Your task to perform on an android device: check out phone information Image 0: 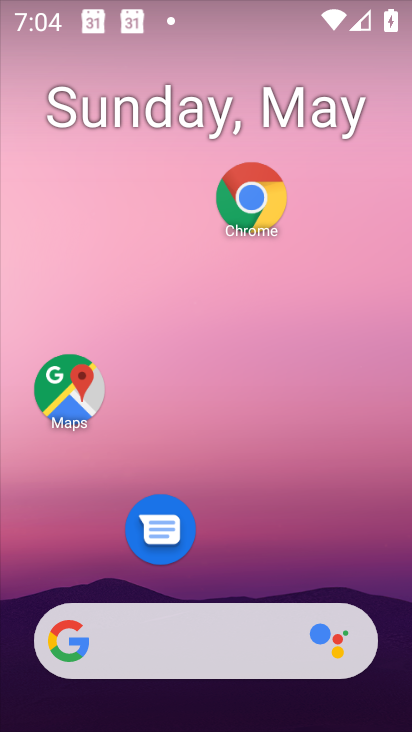
Step 0: drag from (223, 567) to (245, 247)
Your task to perform on an android device: check out phone information Image 1: 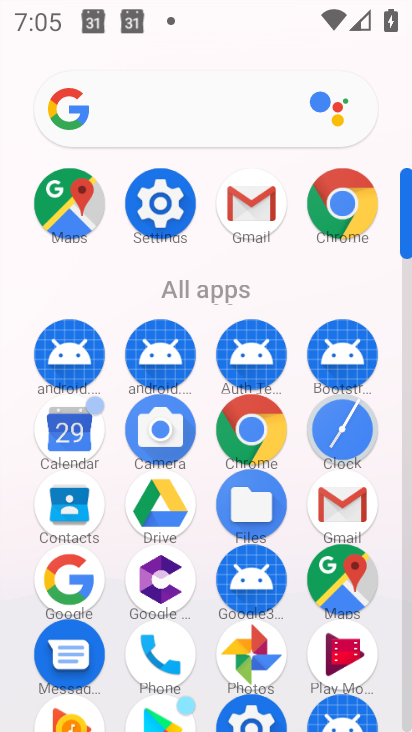
Step 1: click (164, 208)
Your task to perform on an android device: check out phone information Image 2: 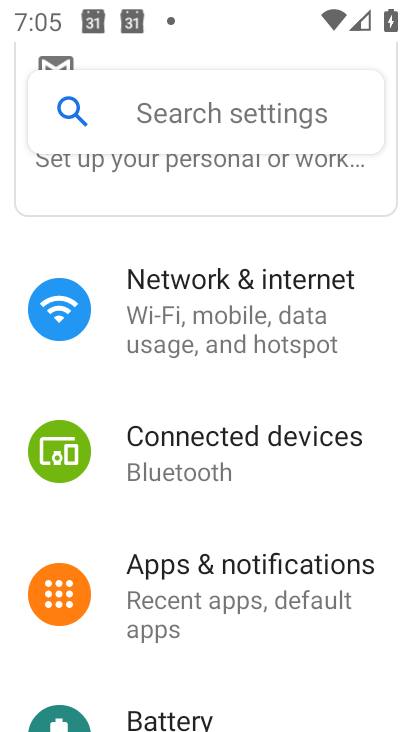
Step 2: drag from (245, 669) to (279, 237)
Your task to perform on an android device: check out phone information Image 3: 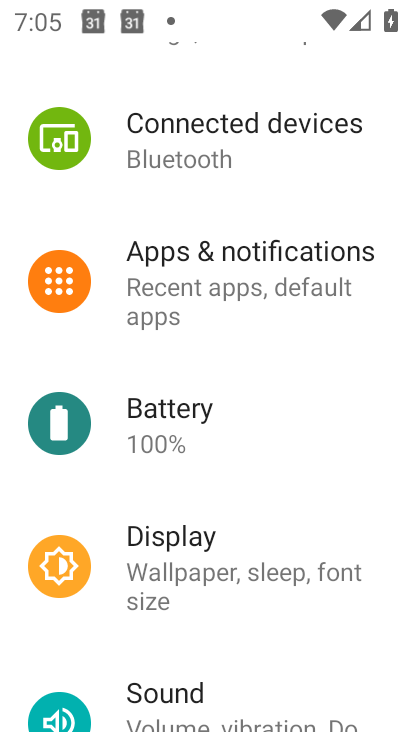
Step 3: drag from (237, 624) to (279, 335)
Your task to perform on an android device: check out phone information Image 4: 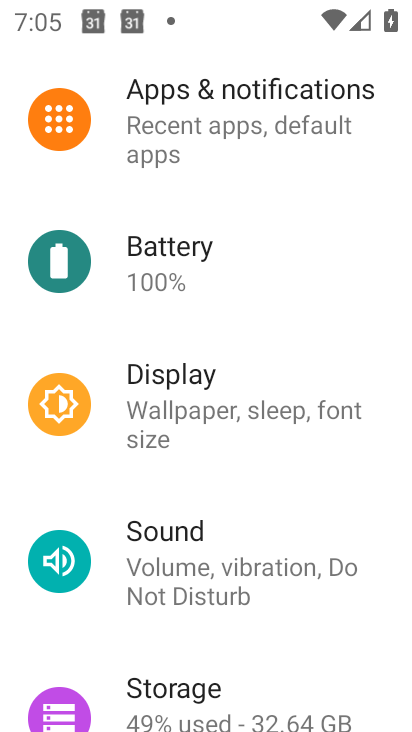
Step 4: drag from (272, 648) to (314, 241)
Your task to perform on an android device: check out phone information Image 5: 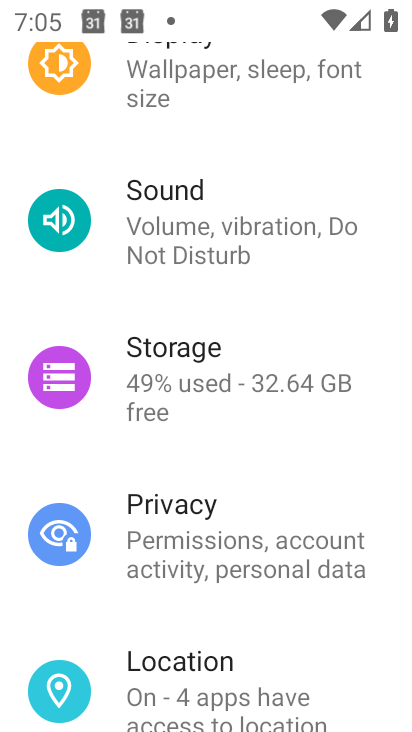
Step 5: drag from (269, 675) to (323, 332)
Your task to perform on an android device: check out phone information Image 6: 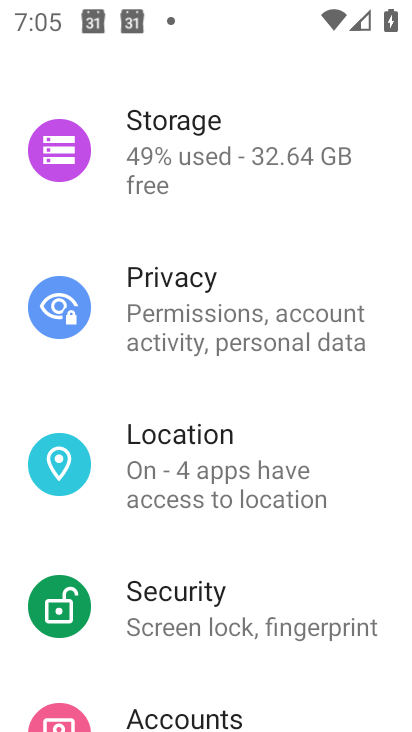
Step 6: drag from (272, 685) to (342, 333)
Your task to perform on an android device: check out phone information Image 7: 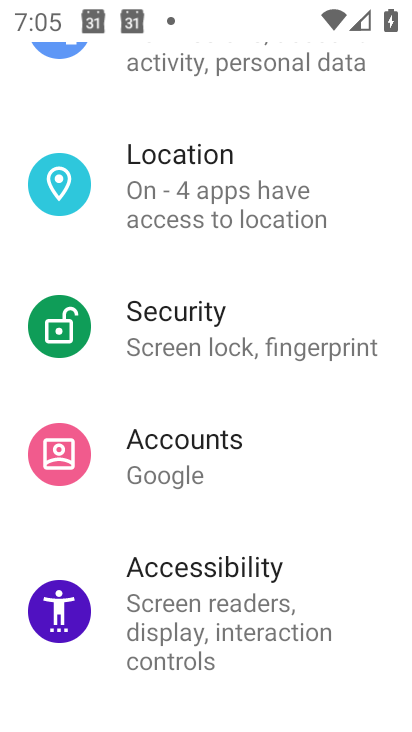
Step 7: drag from (282, 669) to (294, 355)
Your task to perform on an android device: check out phone information Image 8: 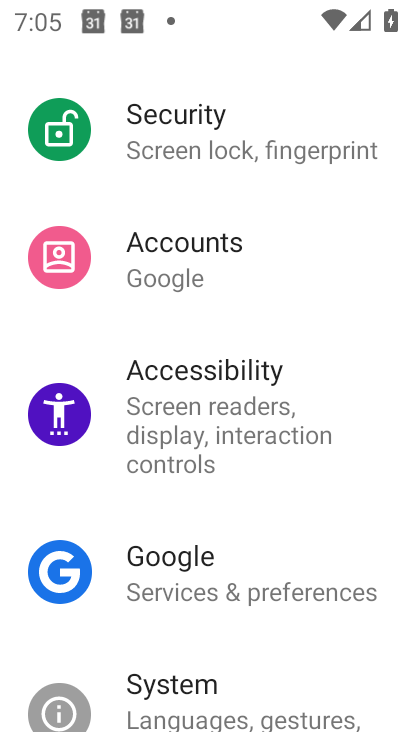
Step 8: drag from (257, 610) to (296, 320)
Your task to perform on an android device: check out phone information Image 9: 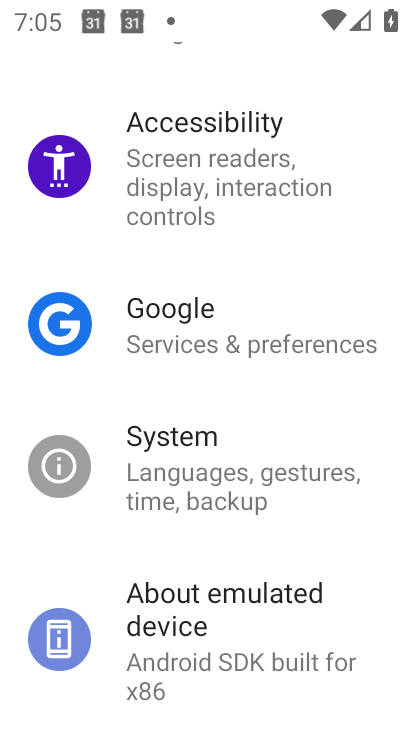
Step 9: click (275, 616)
Your task to perform on an android device: check out phone information Image 10: 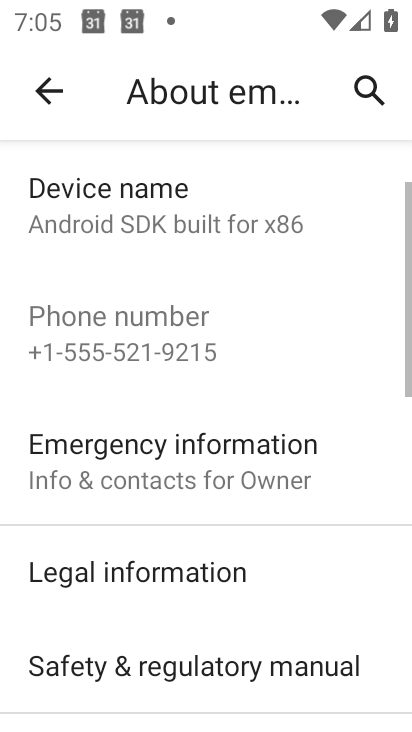
Step 10: click (270, 501)
Your task to perform on an android device: check out phone information Image 11: 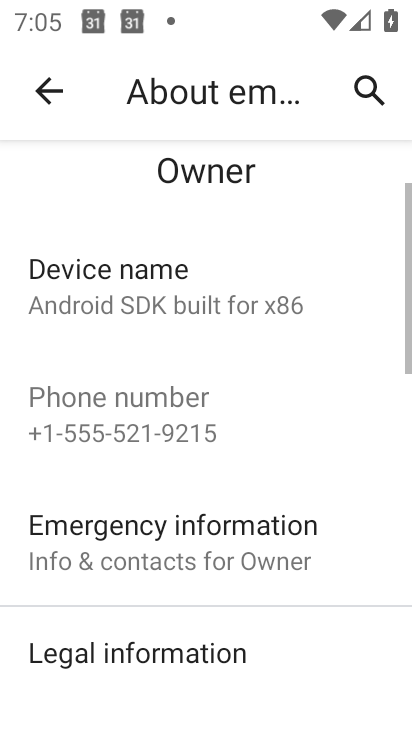
Step 11: click (228, 287)
Your task to perform on an android device: check out phone information Image 12: 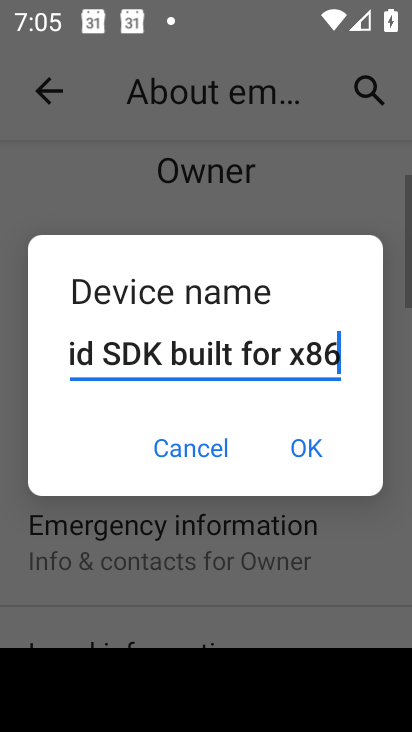
Step 12: click (298, 444)
Your task to perform on an android device: check out phone information Image 13: 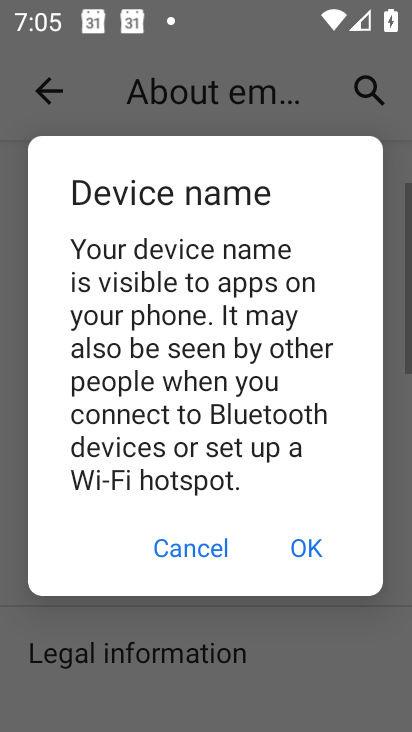
Step 13: click (306, 543)
Your task to perform on an android device: check out phone information Image 14: 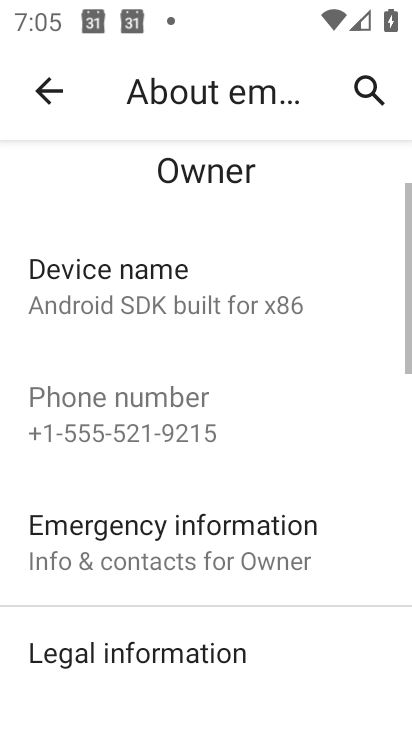
Step 14: task complete